Your task to perform on an android device: Go to Wikipedia Image 0: 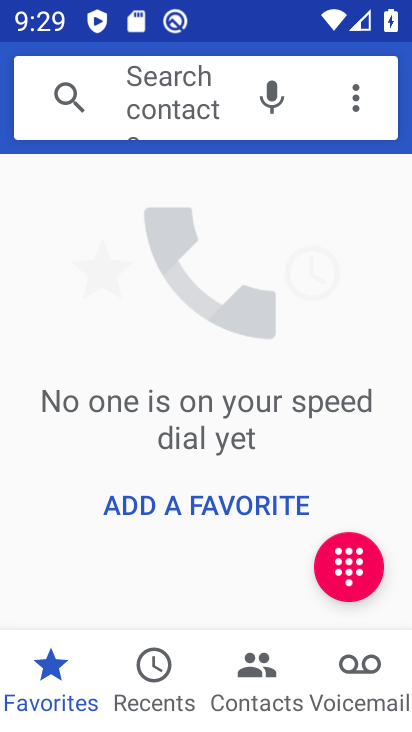
Step 0: press home button
Your task to perform on an android device: Go to Wikipedia Image 1: 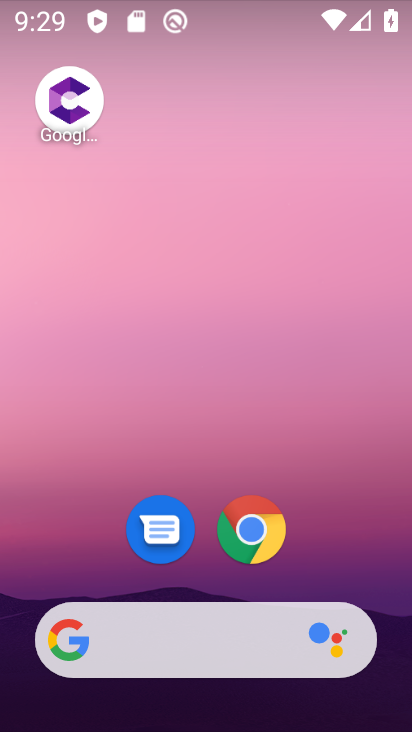
Step 1: click (291, 521)
Your task to perform on an android device: Go to Wikipedia Image 2: 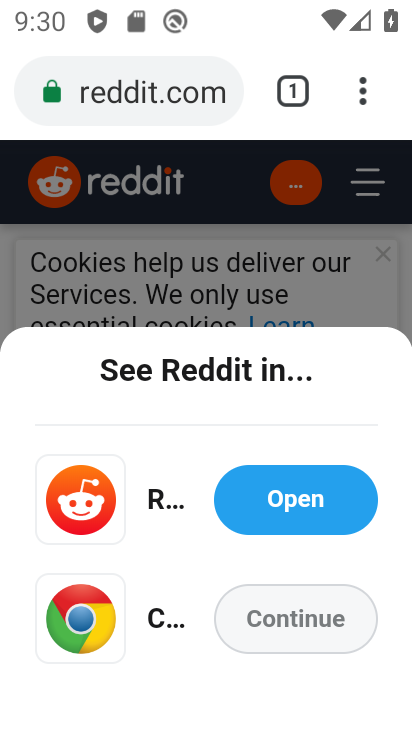
Step 2: click (156, 123)
Your task to perform on an android device: Go to Wikipedia Image 3: 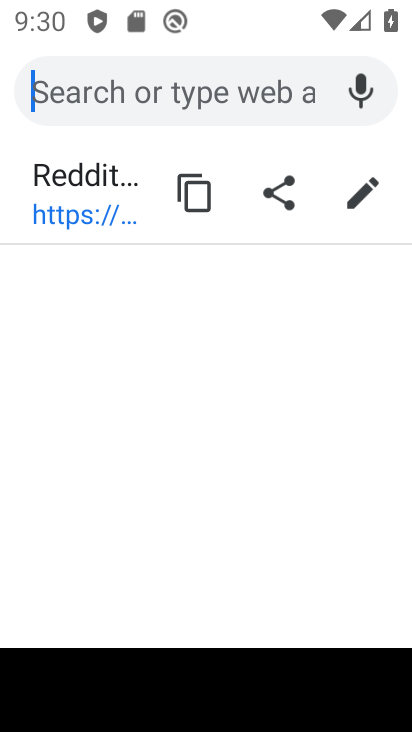
Step 3: type "wikipedia"
Your task to perform on an android device: Go to Wikipedia Image 4: 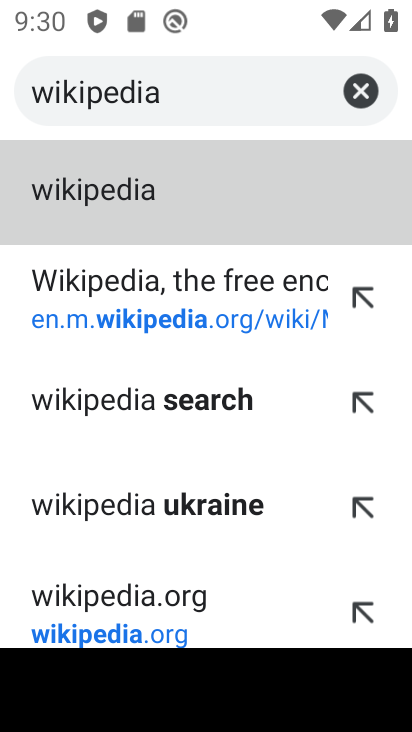
Step 4: click (138, 609)
Your task to perform on an android device: Go to Wikipedia Image 5: 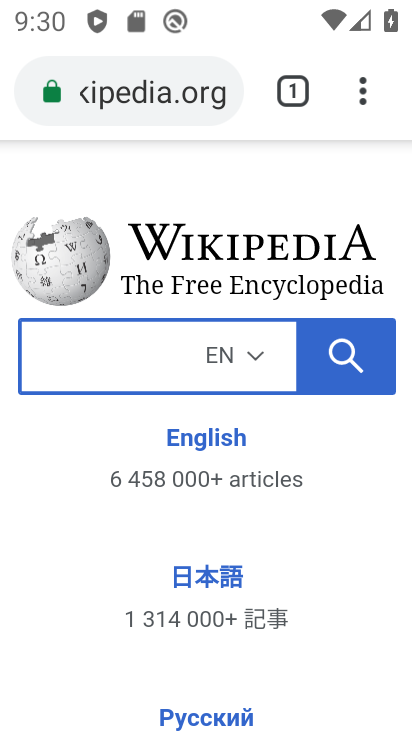
Step 5: task complete